Your task to perform on an android device: What's the weather today? Image 0: 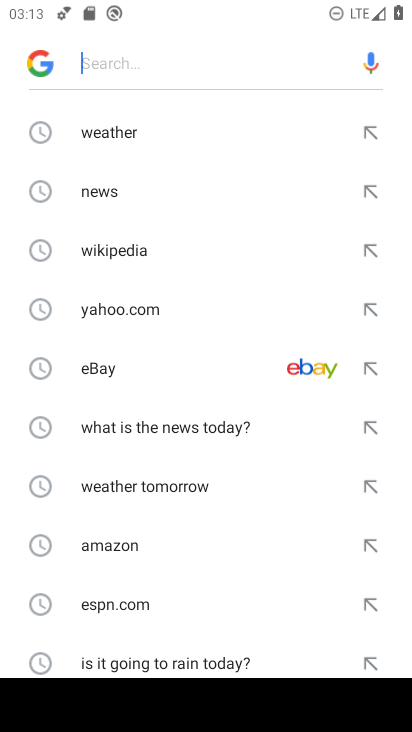
Step 0: click (89, 129)
Your task to perform on an android device: What's the weather today? Image 1: 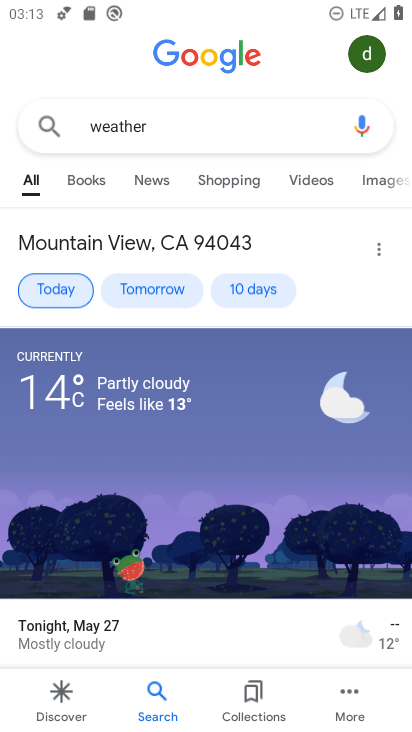
Step 1: click (56, 292)
Your task to perform on an android device: What's the weather today? Image 2: 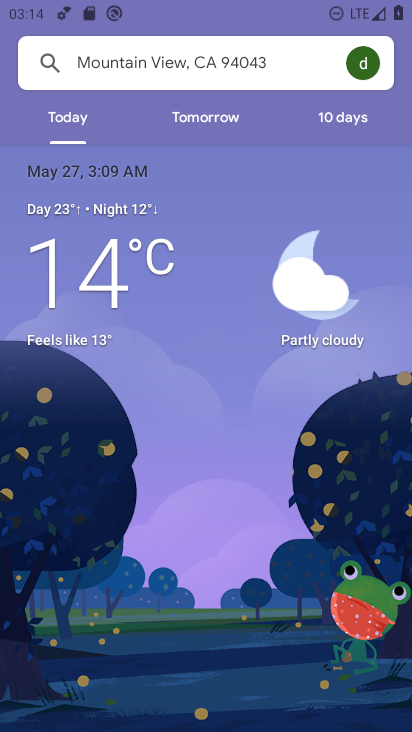
Step 2: task complete